Your task to perform on an android device: Open ESPN.com Image 0: 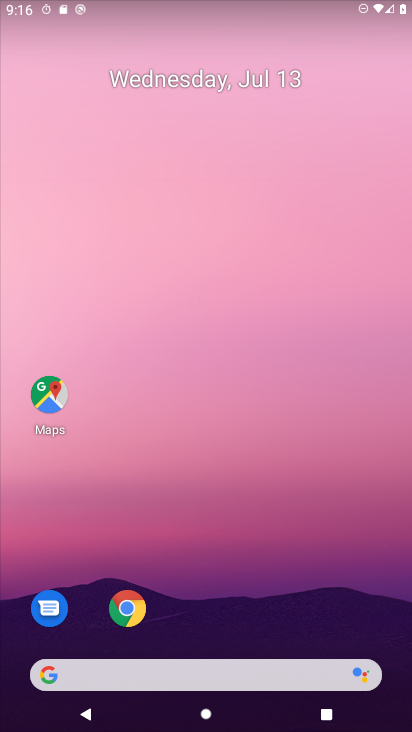
Step 0: drag from (267, 617) to (200, 173)
Your task to perform on an android device: Open ESPN.com Image 1: 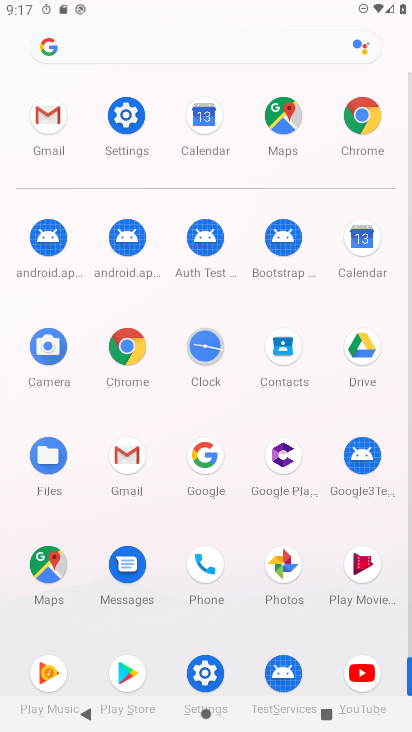
Step 1: click (119, 351)
Your task to perform on an android device: Open ESPN.com Image 2: 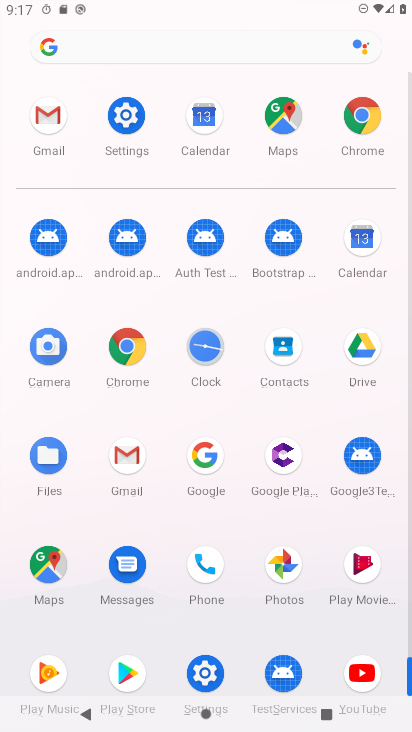
Step 2: click (122, 354)
Your task to perform on an android device: Open ESPN.com Image 3: 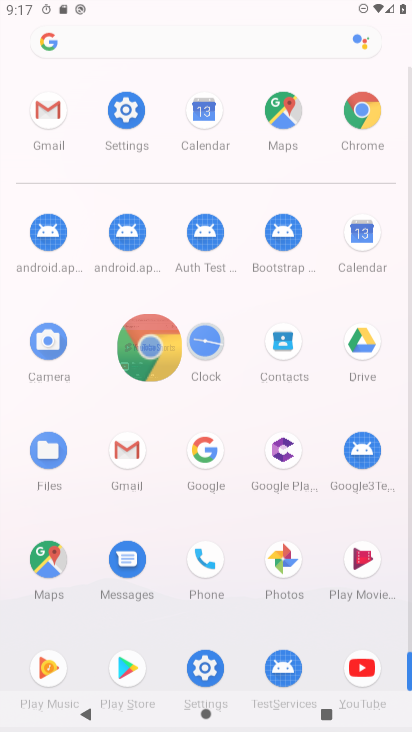
Step 3: click (122, 354)
Your task to perform on an android device: Open ESPN.com Image 4: 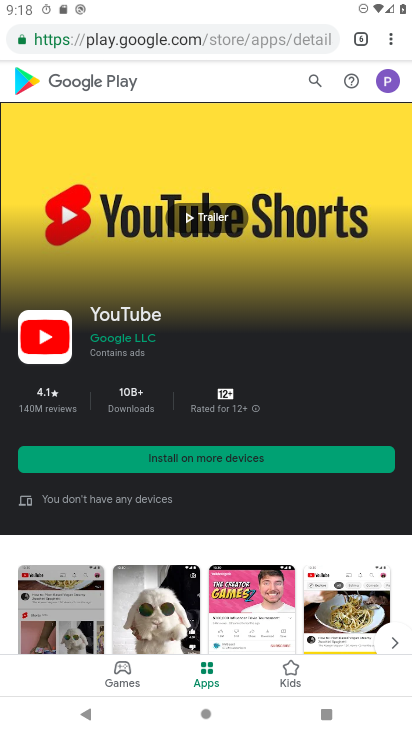
Step 4: drag from (386, 45) to (252, 78)
Your task to perform on an android device: Open ESPN.com Image 5: 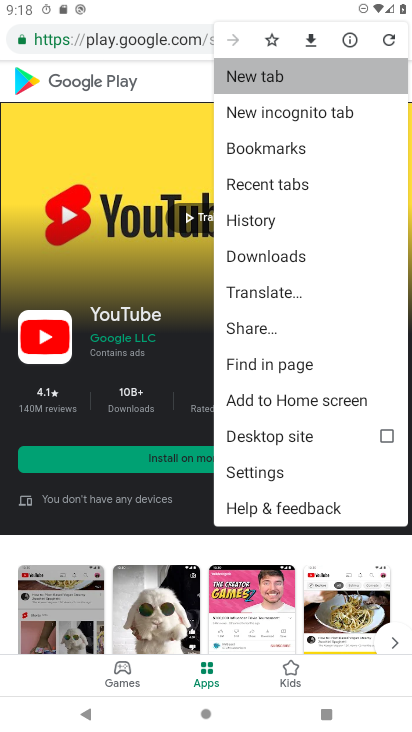
Step 5: click (252, 78)
Your task to perform on an android device: Open ESPN.com Image 6: 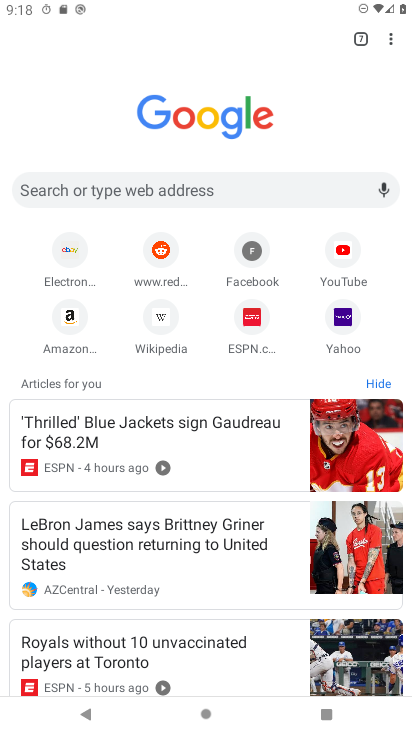
Step 6: click (241, 324)
Your task to perform on an android device: Open ESPN.com Image 7: 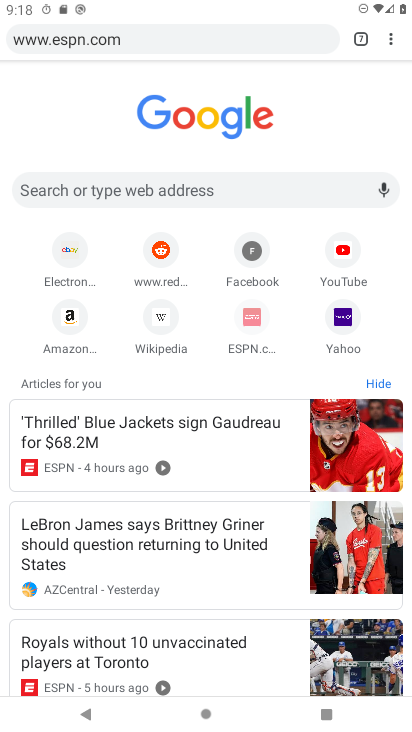
Step 7: click (241, 324)
Your task to perform on an android device: Open ESPN.com Image 8: 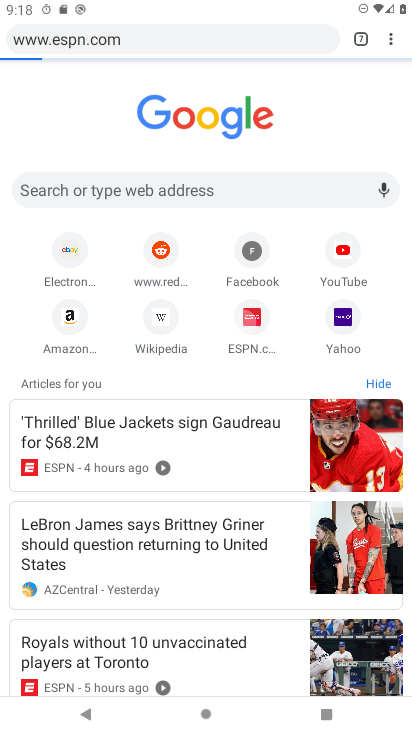
Step 8: click (241, 324)
Your task to perform on an android device: Open ESPN.com Image 9: 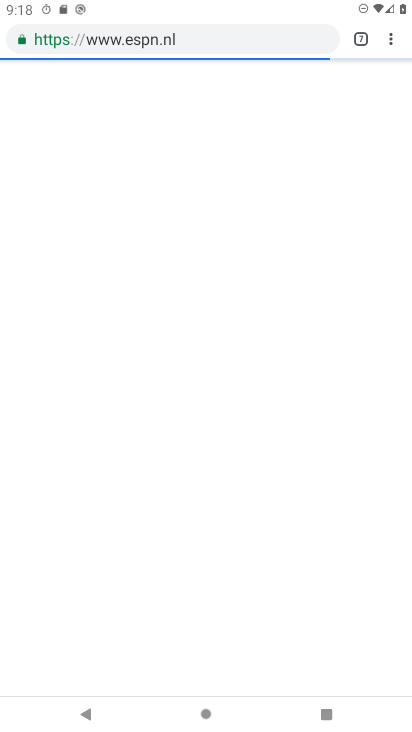
Step 9: task complete